Your task to perform on an android device: toggle airplane mode Image 0: 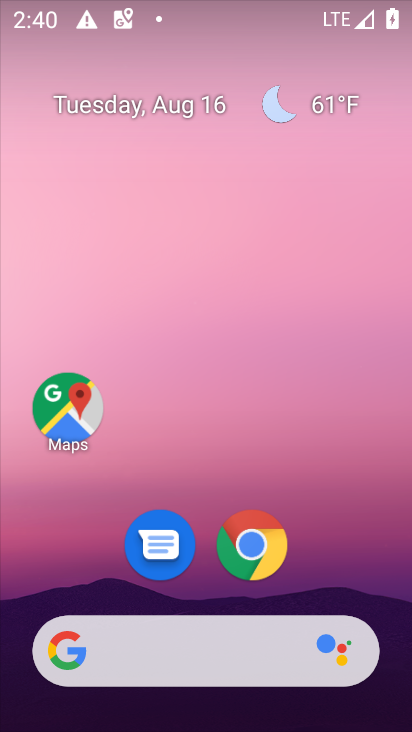
Step 0: drag from (185, 622) to (129, 179)
Your task to perform on an android device: toggle airplane mode Image 1: 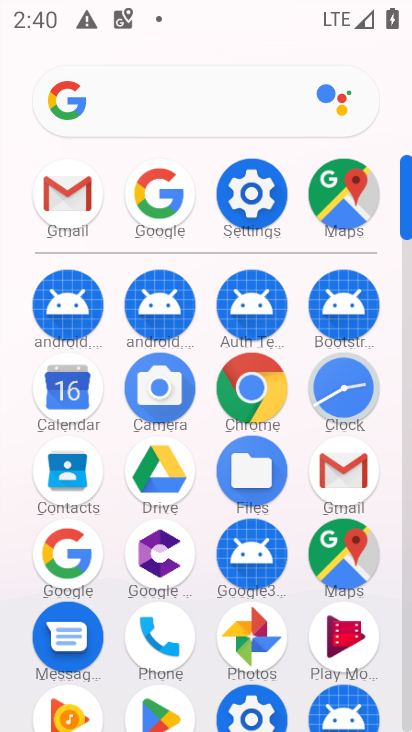
Step 1: click (252, 196)
Your task to perform on an android device: toggle airplane mode Image 2: 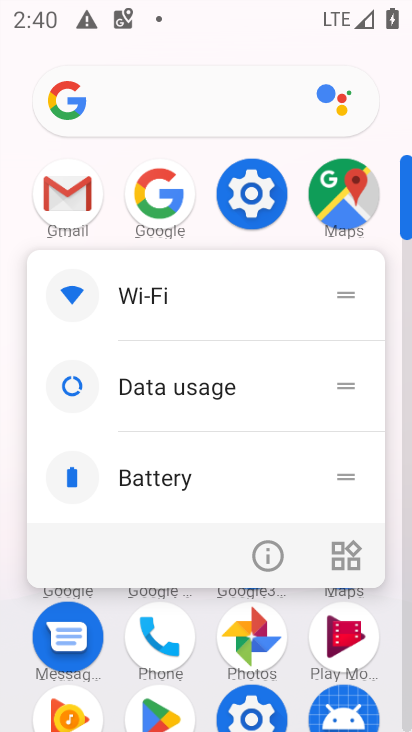
Step 2: click (254, 201)
Your task to perform on an android device: toggle airplane mode Image 3: 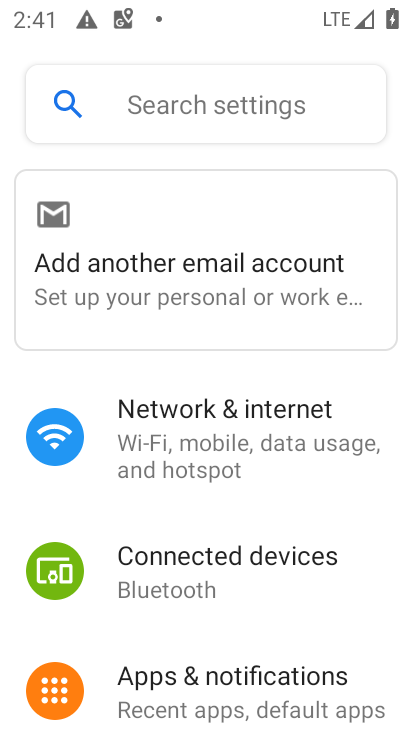
Step 3: click (185, 446)
Your task to perform on an android device: toggle airplane mode Image 4: 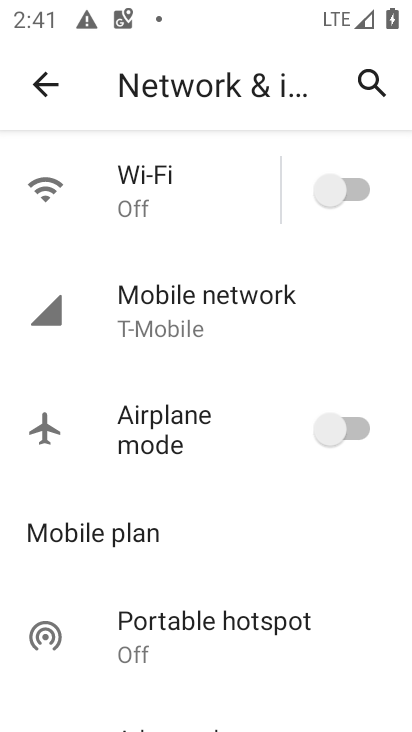
Step 4: click (364, 427)
Your task to perform on an android device: toggle airplane mode Image 5: 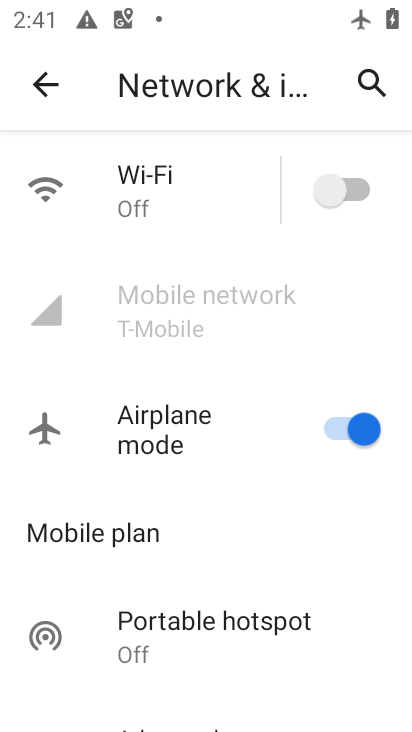
Step 5: task complete